Your task to perform on an android device: Go to settings Image 0: 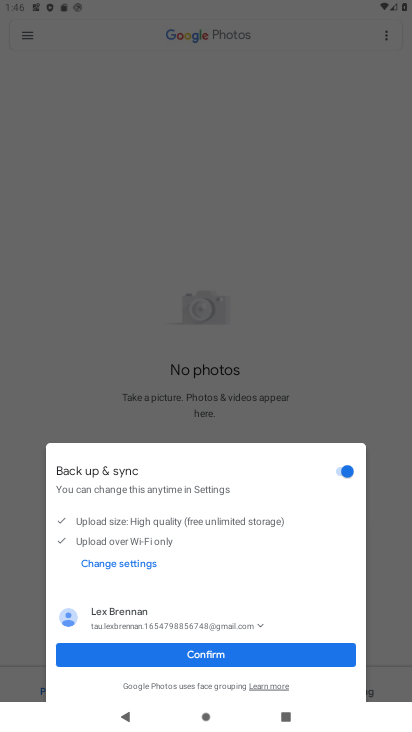
Step 0: press back button
Your task to perform on an android device: Go to settings Image 1: 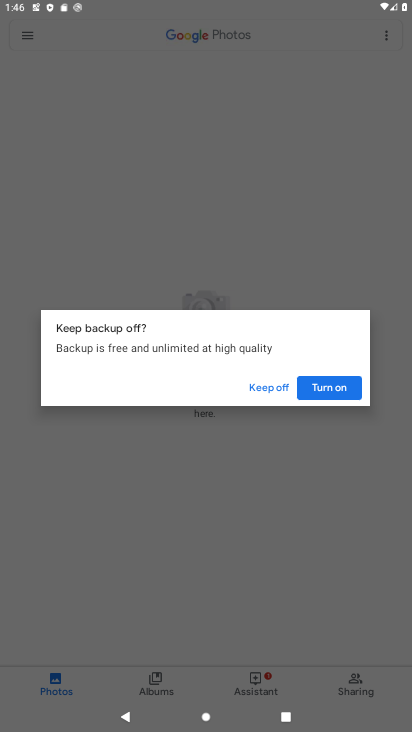
Step 1: press home button
Your task to perform on an android device: Go to settings Image 2: 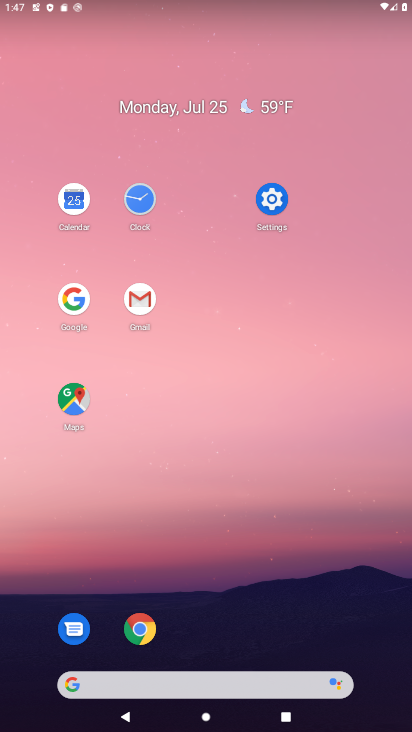
Step 2: click (274, 196)
Your task to perform on an android device: Go to settings Image 3: 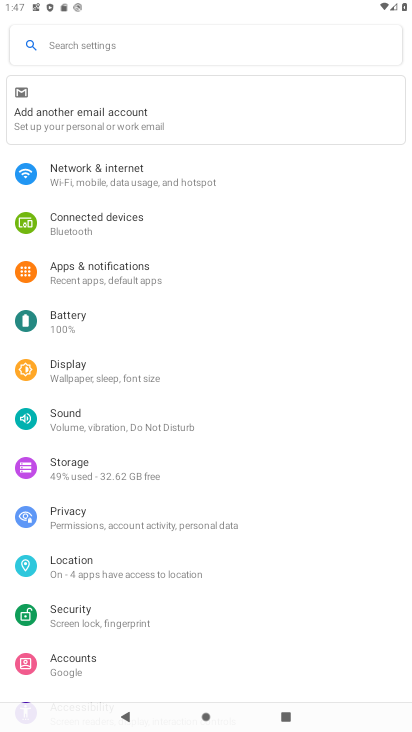
Step 3: task complete